Your task to perform on an android device: see sites visited before in the chrome app Image 0: 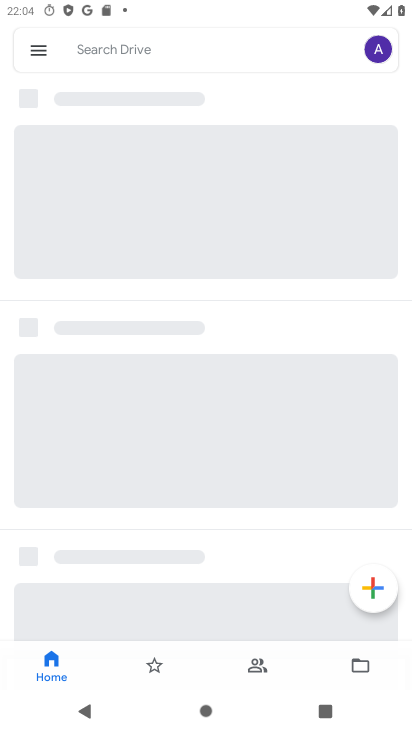
Step 0: press home button
Your task to perform on an android device: see sites visited before in the chrome app Image 1: 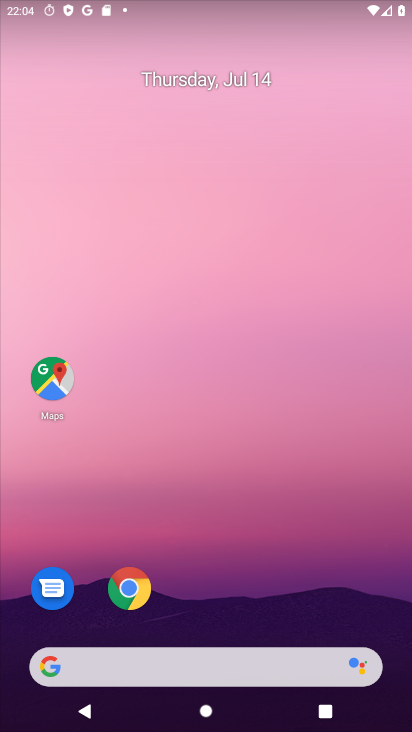
Step 1: click (127, 587)
Your task to perform on an android device: see sites visited before in the chrome app Image 2: 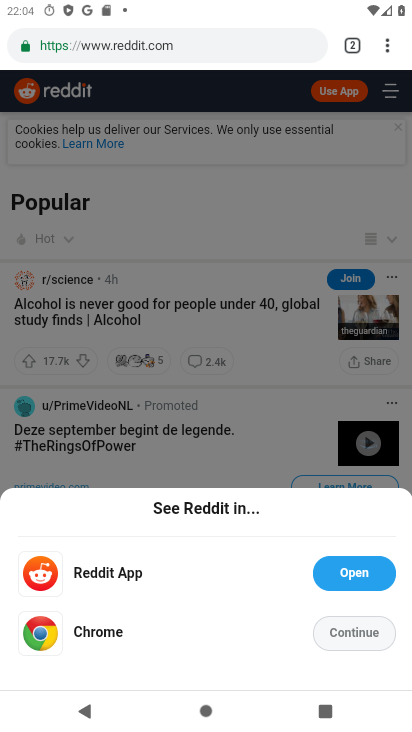
Step 2: click (378, 46)
Your task to perform on an android device: see sites visited before in the chrome app Image 3: 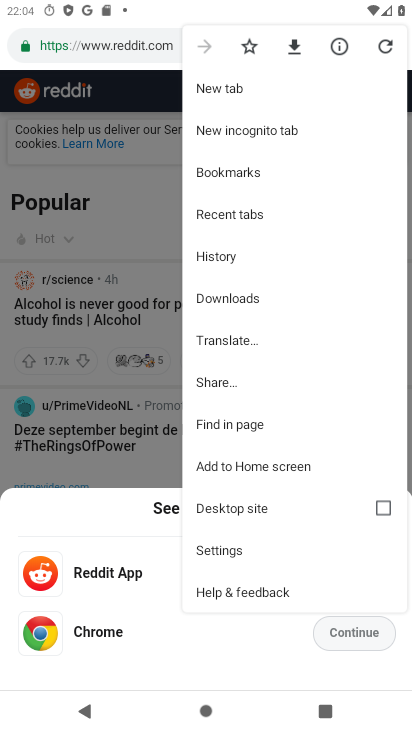
Step 3: click (218, 262)
Your task to perform on an android device: see sites visited before in the chrome app Image 4: 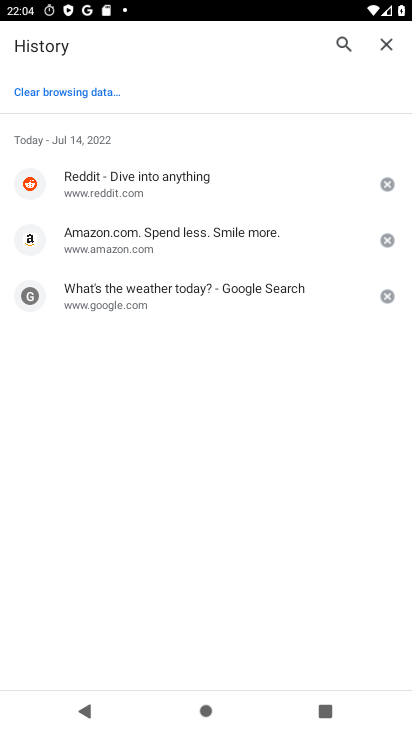
Step 4: task complete